Your task to perform on an android device: Go to calendar. Show me events next week Image 0: 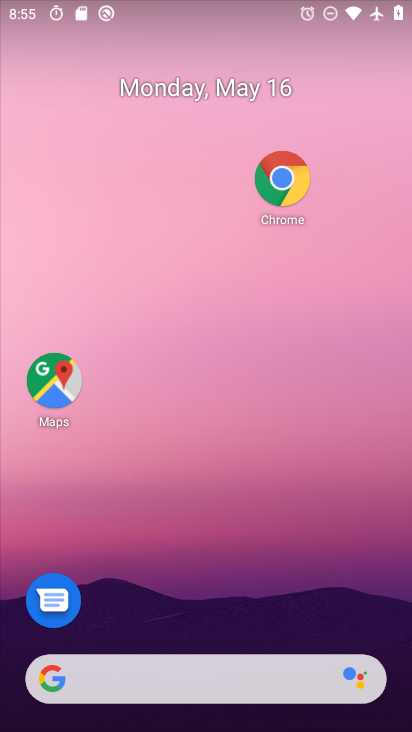
Step 0: press home button
Your task to perform on an android device: Go to calendar. Show me events next week Image 1: 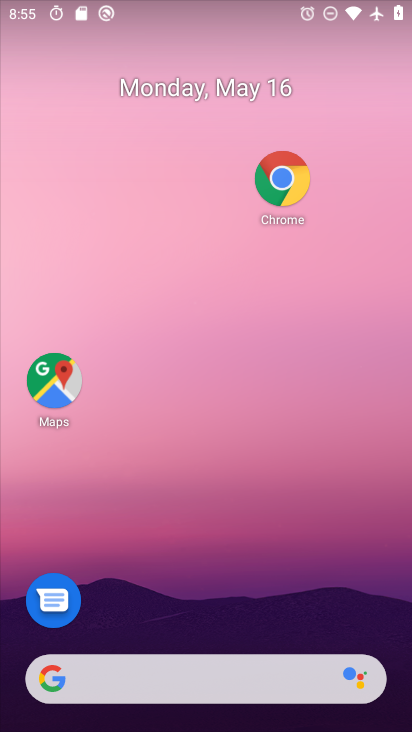
Step 1: drag from (125, 686) to (243, 199)
Your task to perform on an android device: Go to calendar. Show me events next week Image 2: 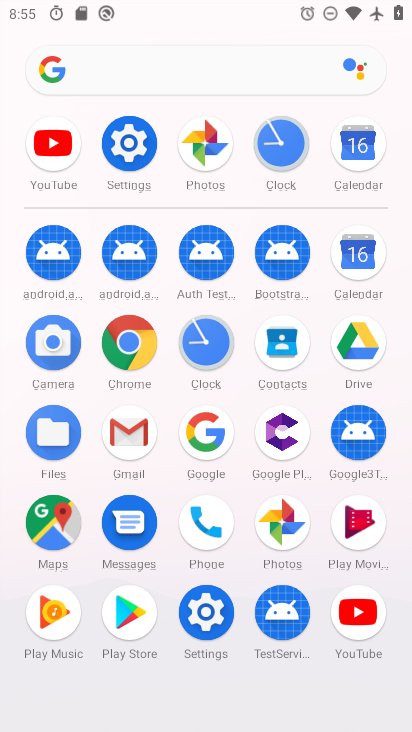
Step 2: click (361, 261)
Your task to perform on an android device: Go to calendar. Show me events next week Image 3: 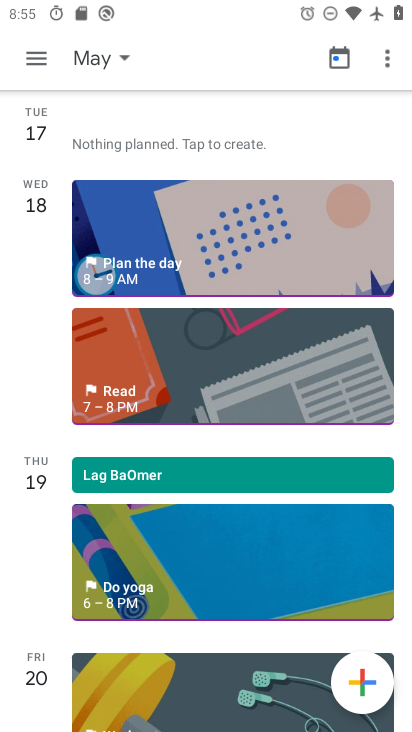
Step 3: click (103, 54)
Your task to perform on an android device: Go to calendar. Show me events next week Image 4: 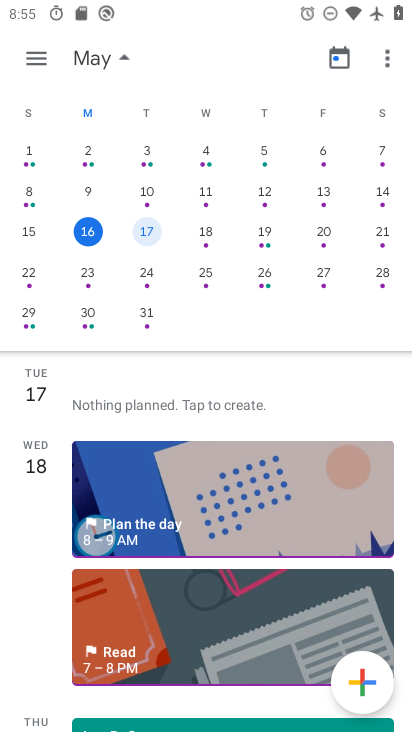
Step 4: click (31, 277)
Your task to perform on an android device: Go to calendar. Show me events next week Image 5: 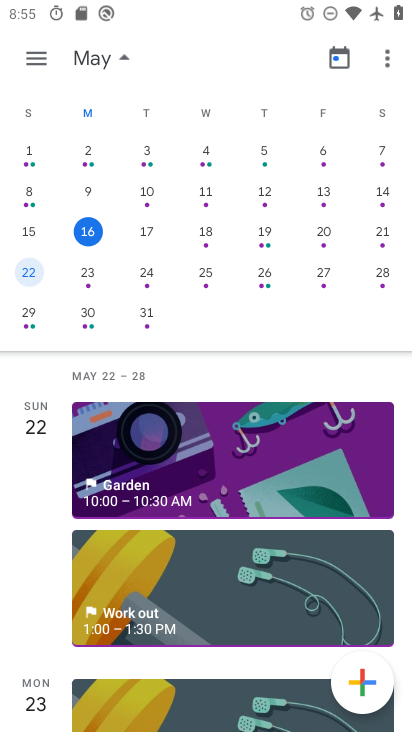
Step 5: click (44, 58)
Your task to perform on an android device: Go to calendar. Show me events next week Image 6: 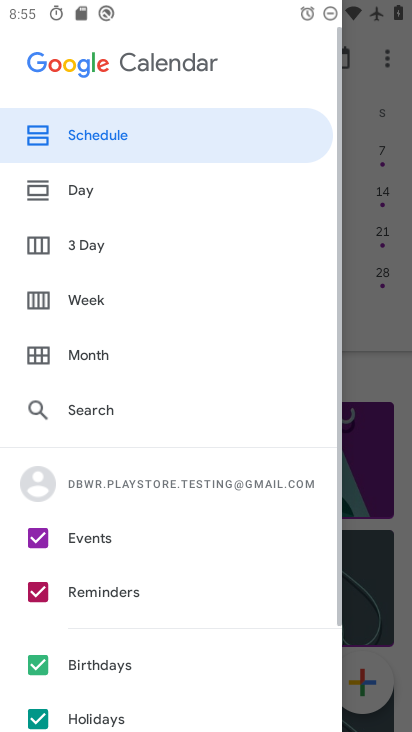
Step 6: click (112, 307)
Your task to perform on an android device: Go to calendar. Show me events next week Image 7: 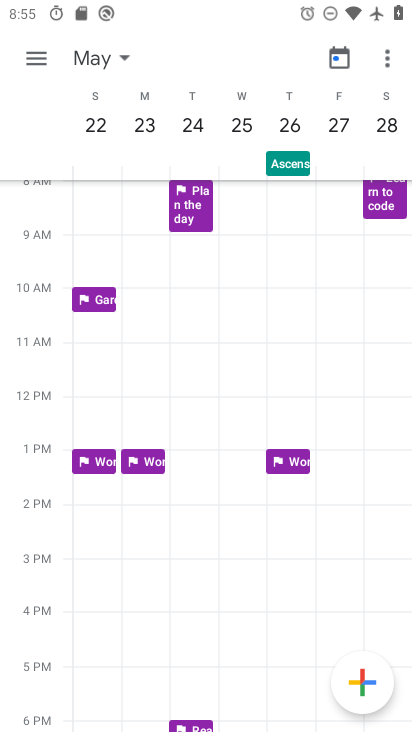
Step 7: click (33, 61)
Your task to perform on an android device: Go to calendar. Show me events next week Image 8: 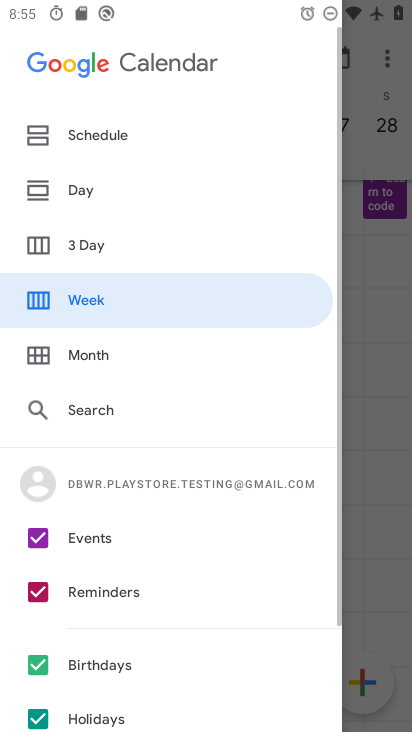
Step 8: click (89, 138)
Your task to perform on an android device: Go to calendar. Show me events next week Image 9: 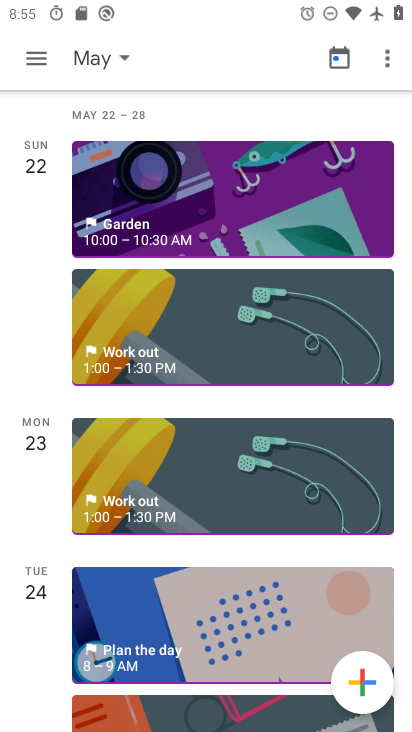
Step 9: click (196, 245)
Your task to perform on an android device: Go to calendar. Show me events next week Image 10: 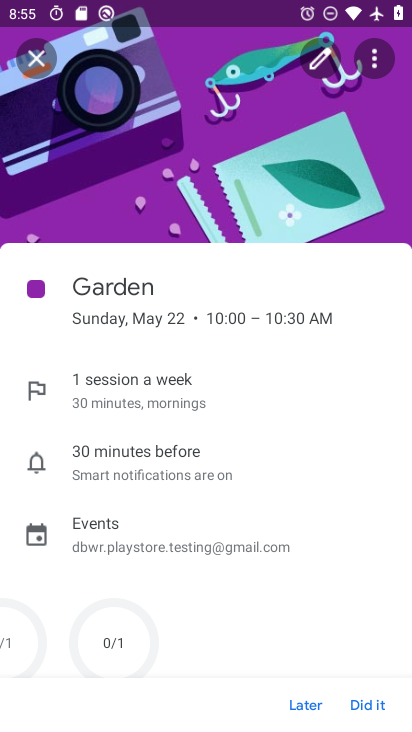
Step 10: task complete